Your task to perform on an android device: Open calendar and show me the third week of next month Image 0: 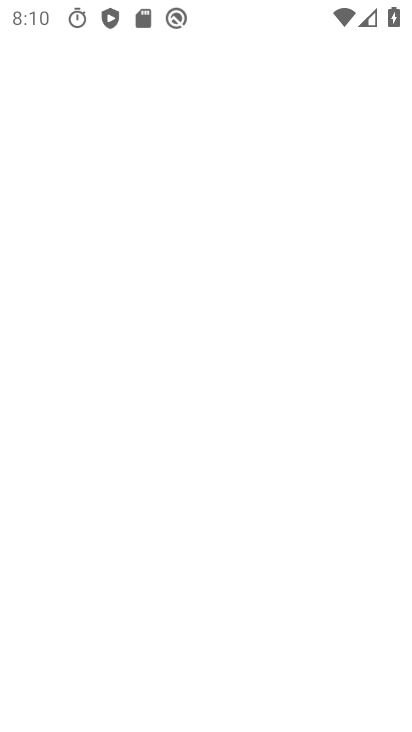
Step 0: press home button
Your task to perform on an android device: Open calendar and show me the third week of next month Image 1: 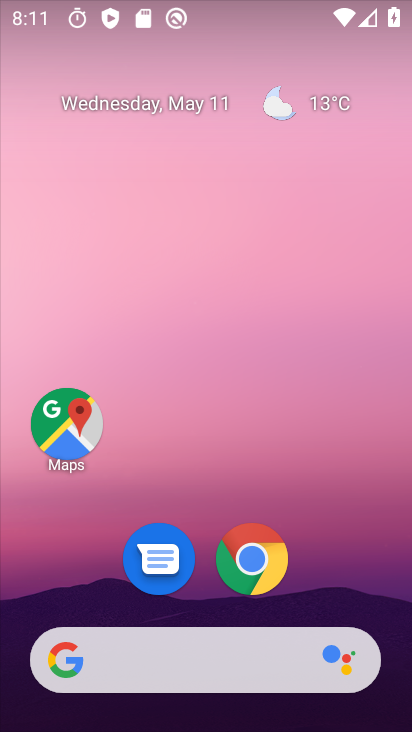
Step 1: click (159, 103)
Your task to perform on an android device: Open calendar and show me the third week of next month Image 2: 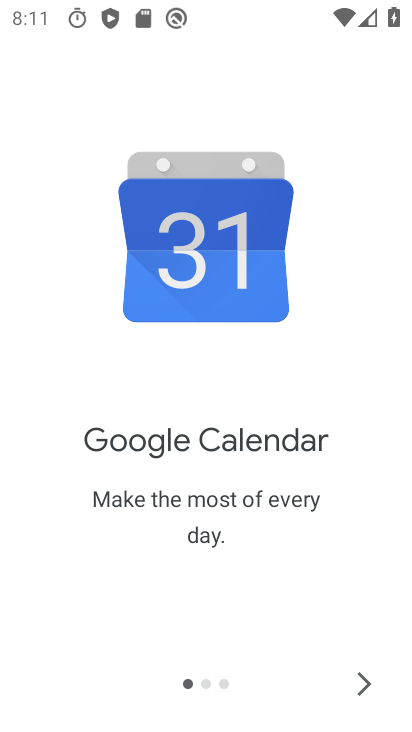
Step 2: click (378, 679)
Your task to perform on an android device: Open calendar and show me the third week of next month Image 3: 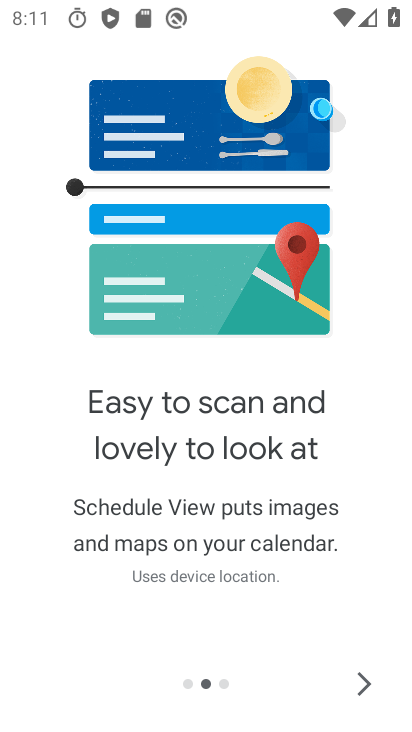
Step 3: click (364, 669)
Your task to perform on an android device: Open calendar and show me the third week of next month Image 4: 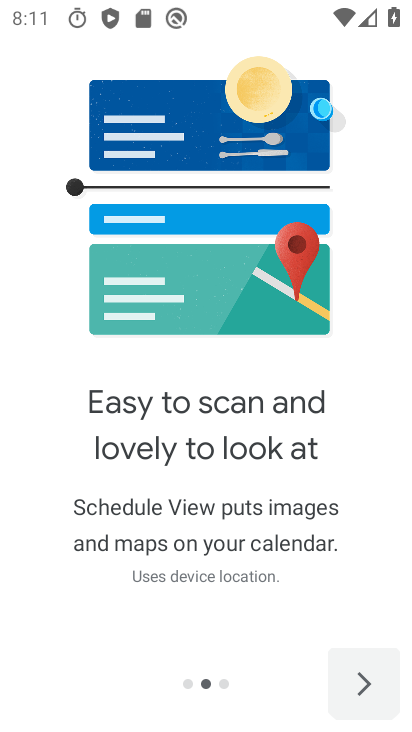
Step 4: click (365, 670)
Your task to perform on an android device: Open calendar and show me the third week of next month Image 5: 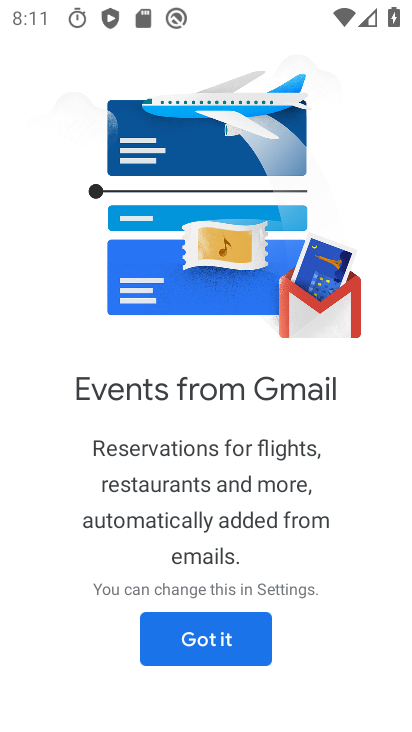
Step 5: click (244, 636)
Your task to perform on an android device: Open calendar and show me the third week of next month Image 6: 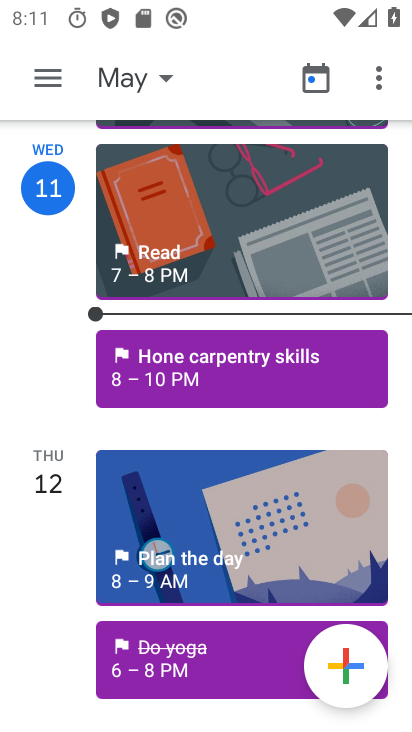
Step 6: click (52, 80)
Your task to perform on an android device: Open calendar and show me the third week of next month Image 7: 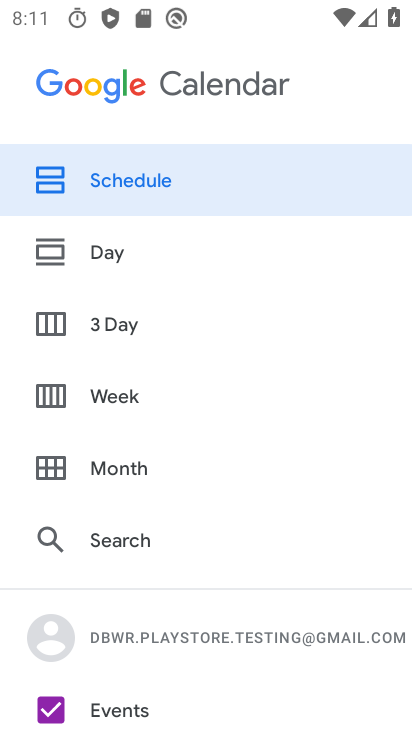
Step 7: click (129, 392)
Your task to perform on an android device: Open calendar and show me the third week of next month Image 8: 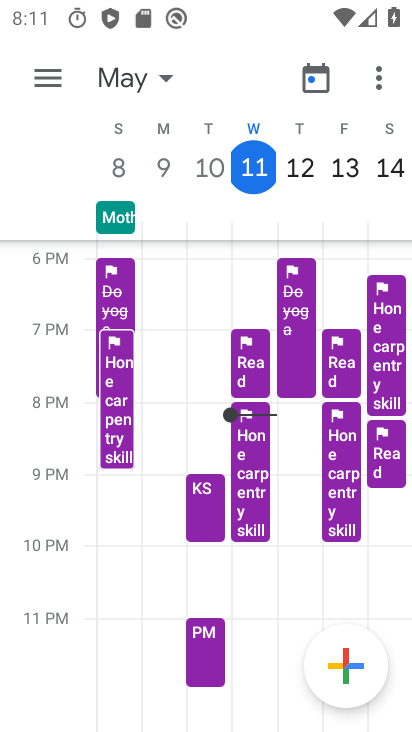
Step 8: click (137, 71)
Your task to perform on an android device: Open calendar and show me the third week of next month Image 9: 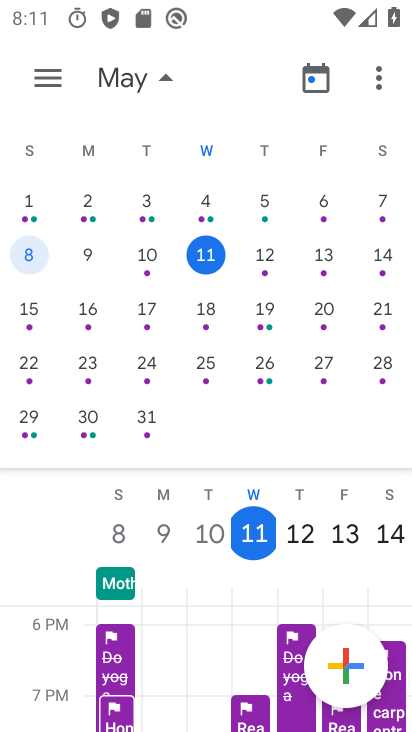
Step 9: drag from (328, 320) to (4, 252)
Your task to perform on an android device: Open calendar and show me the third week of next month Image 10: 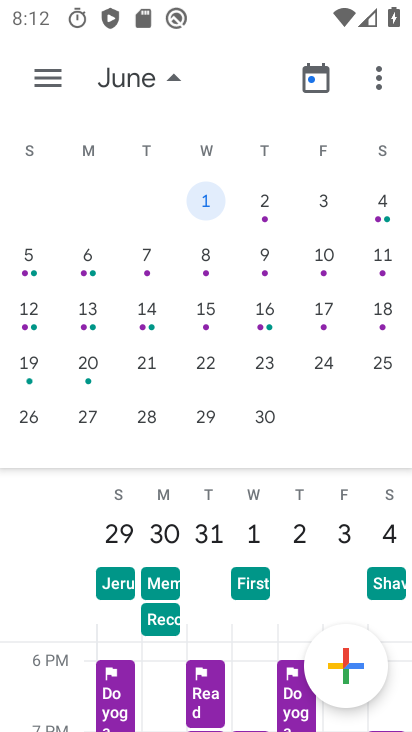
Step 10: click (143, 316)
Your task to perform on an android device: Open calendar and show me the third week of next month Image 11: 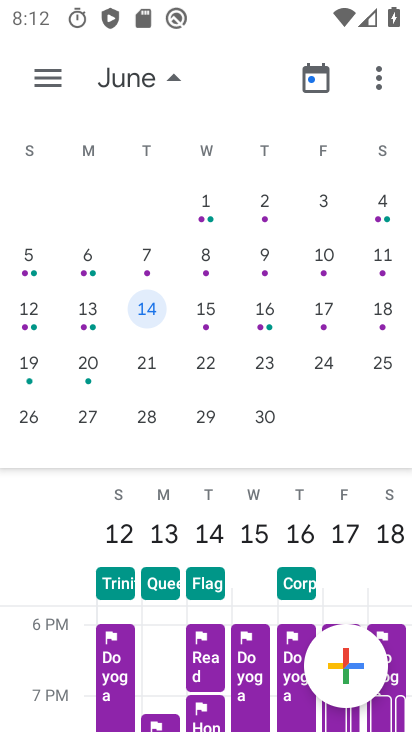
Step 11: task complete